Your task to perform on an android device: Open the gallery Image 0: 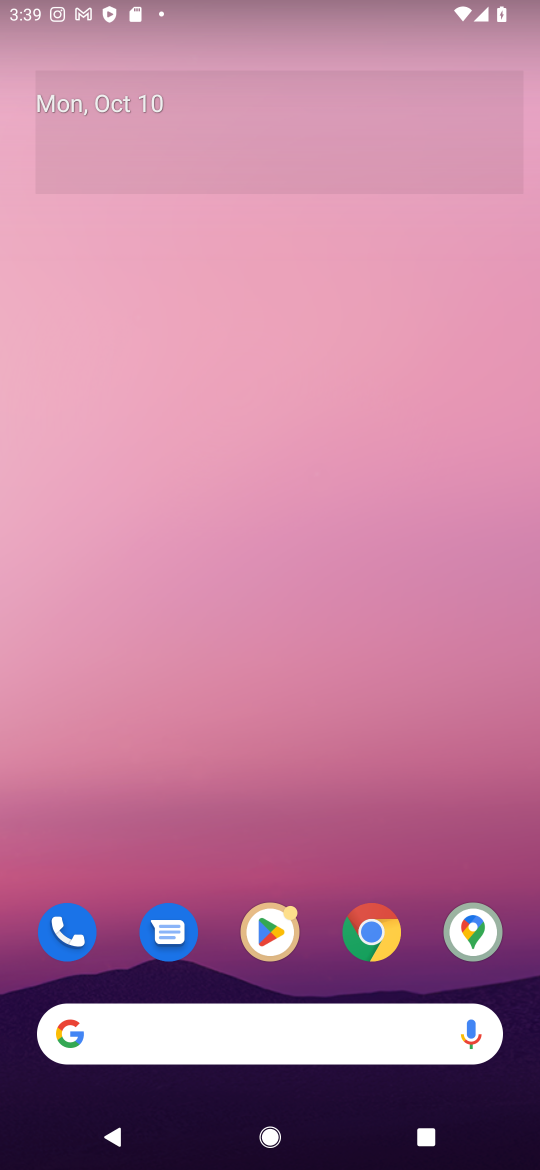
Step 0: drag from (407, 723) to (345, 73)
Your task to perform on an android device: Open the gallery Image 1: 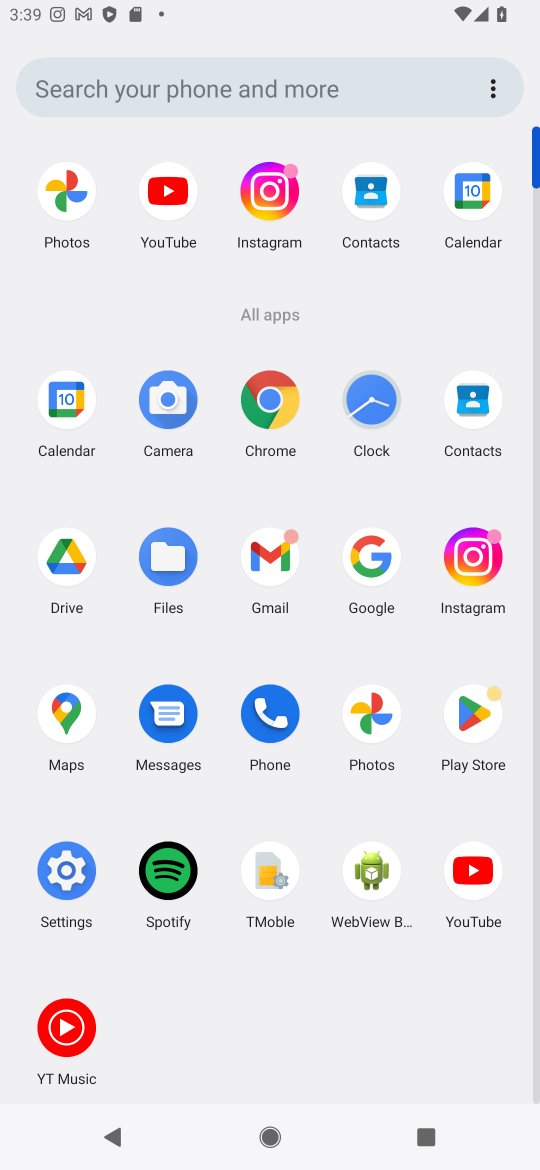
Step 1: task complete